Your task to perform on an android device: add a label to a message in the gmail app Image 0: 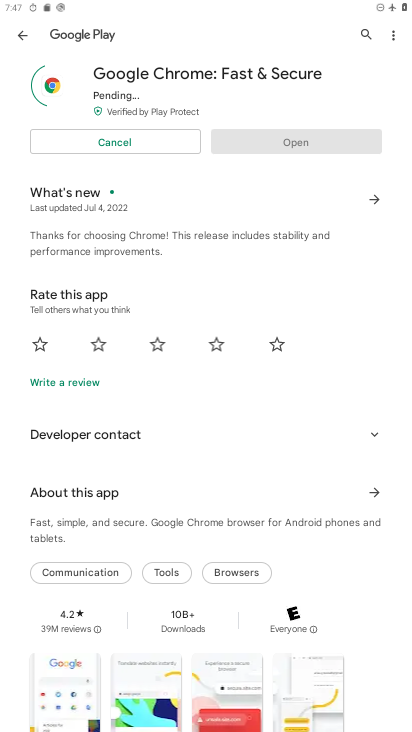
Step 0: press home button
Your task to perform on an android device: add a label to a message in the gmail app Image 1: 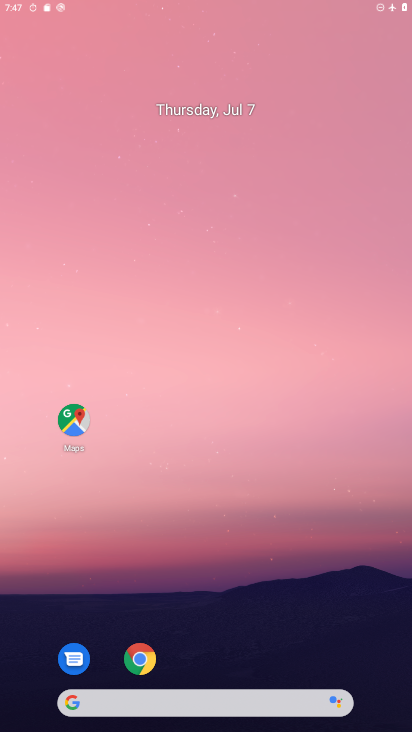
Step 1: drag from (368, 668) to (317, 20)
Your task to perform on an android device: add a label to a message in the gmail app Image 2: 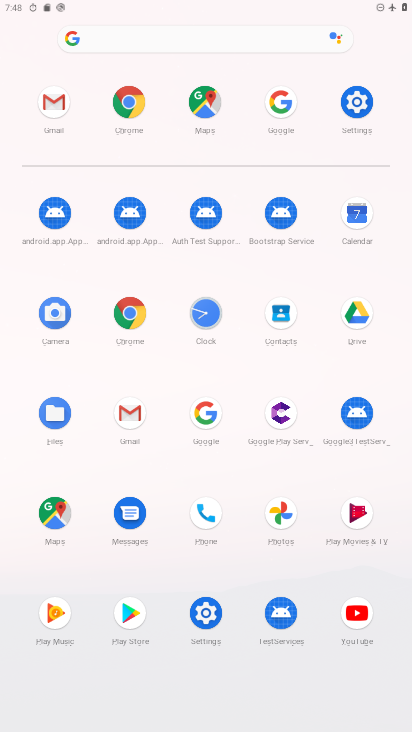
Step 2: click (142, 406)
Your task to perform on an android device: add a label to a message in the gmail app Image 3: 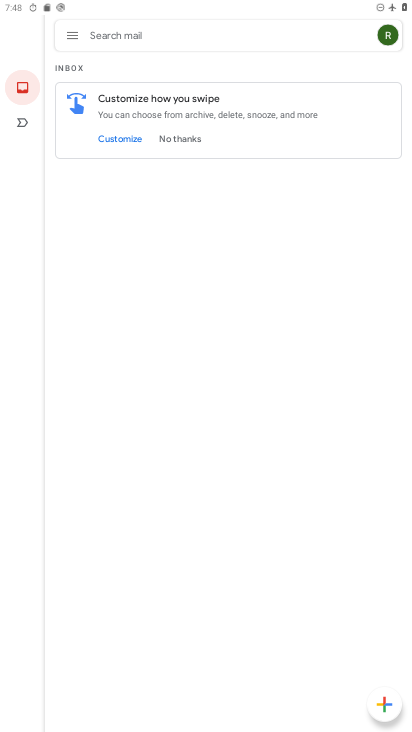
Step 3: task complete